Your task to perform on an android device: open app "Pluto TV - Live TV and Movies" (install if not already installed) and go to login screen Image 0: 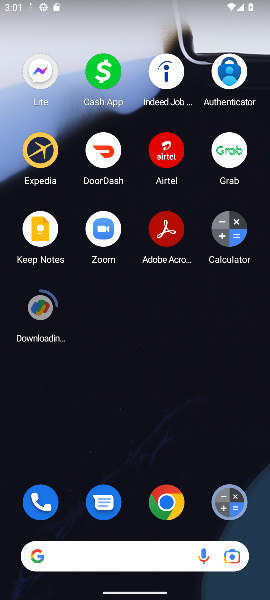
Step 0: drag from (132, 518) to (171, 58)
Your task to perform on an android device: open app "Pluto TV - Live TV and Movies" (install if not already installed) and go to login screen Image 1: 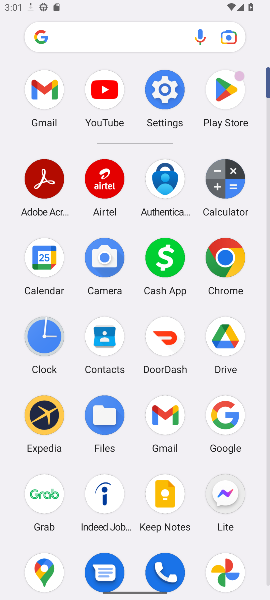
Step 1: click (214, 89)
Your task to perform on an android device: open app "Pluto TV - Live TV and Movies" (install if not already installed) and go to login screen Image 2: 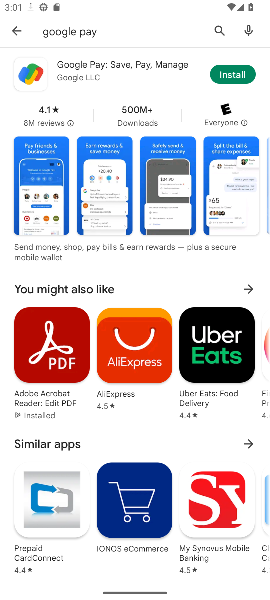
Step 2: click (223, 34)
Your task to perform on an android device: open app "Pluto TV - Live TV and Movies" (install if not already installed) and go to login screen Image 3: 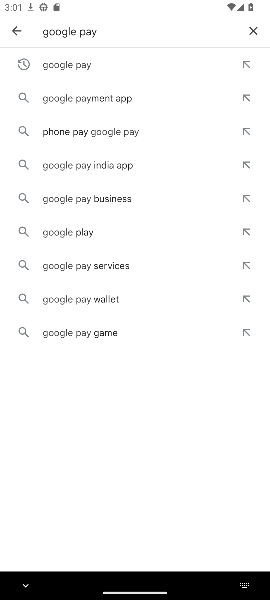
Step 3: click (251, 36)
Your task to perform on an android device: open app "Pluto TV - Live TV and Movies" (install if not already installed) and go to login screen Image 4: 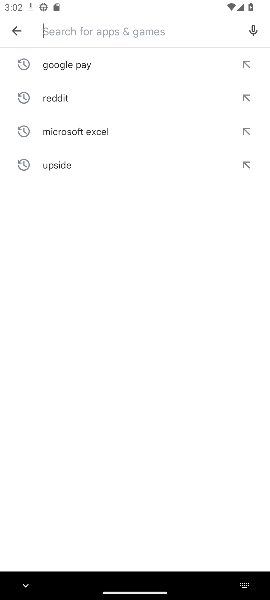
Step 4: type "pluto tv"
Your task to perform on an android device: open app "Pluto TV - Live TV and Movies" (install if not already installed) and go to login screen Image 5: 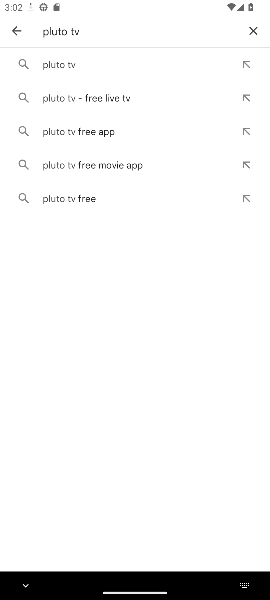
Step 5: click (107, 67)
Your task to perform on an android device: open app "Pluto TV - Live TV and Movies" (install if not already installed) and go to login screen Image 6: 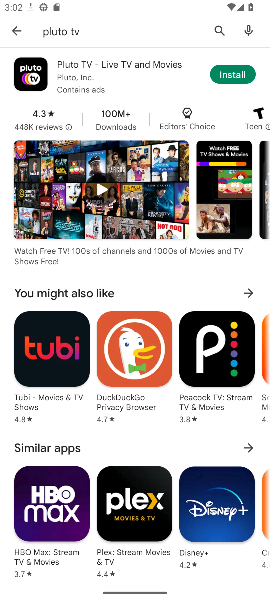
Step 6: click (233, 74)
Your task to perform on an android device: open app "Pluto TV - Live TV and Movies" (install if not already installed) and go to login screen Image 7: 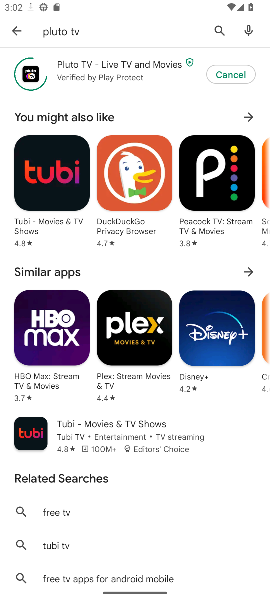
Step 7: task complete